Your task to perform on an android device: add a label to a message in the gmail app Image 0: 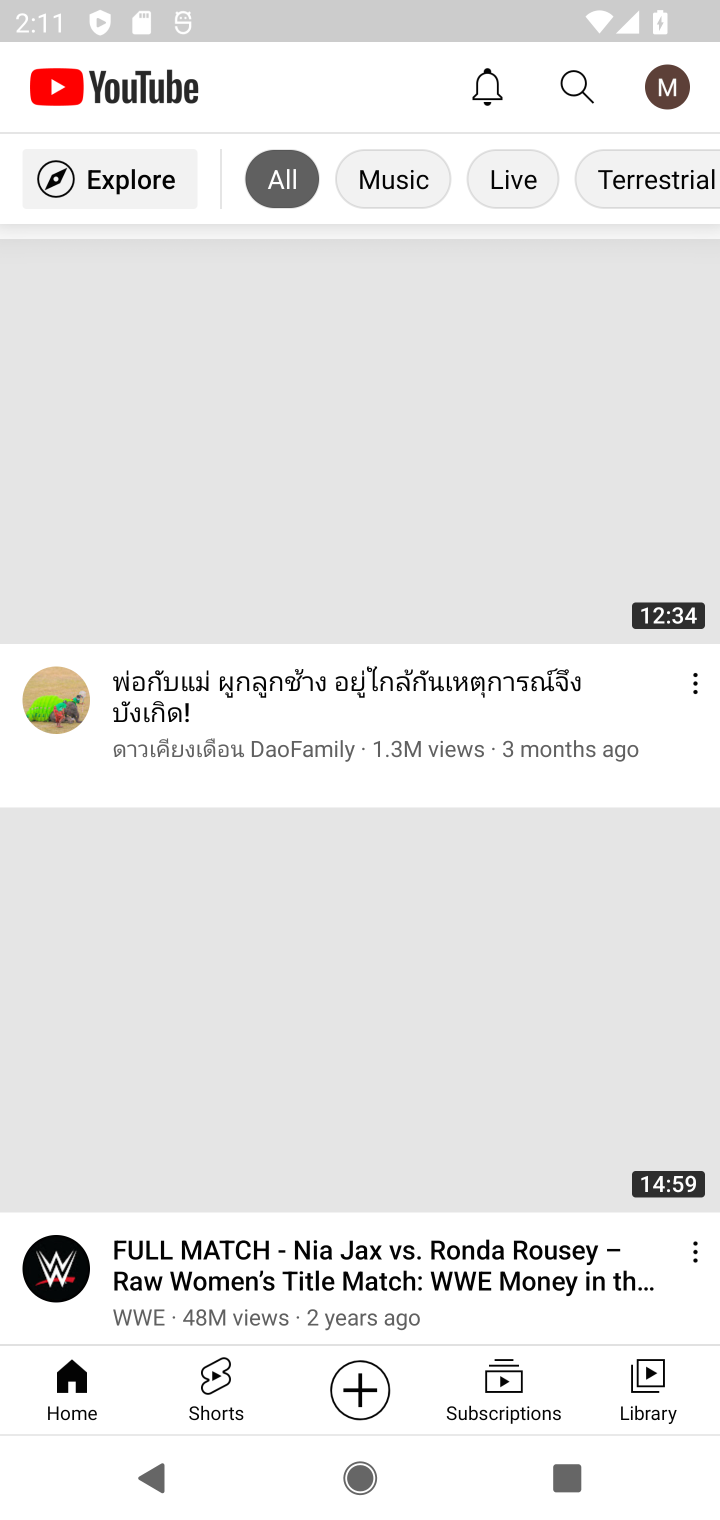
Step 0: press home button
Your task to perform on an android device: add a label to a message in the gmail app Image 1: 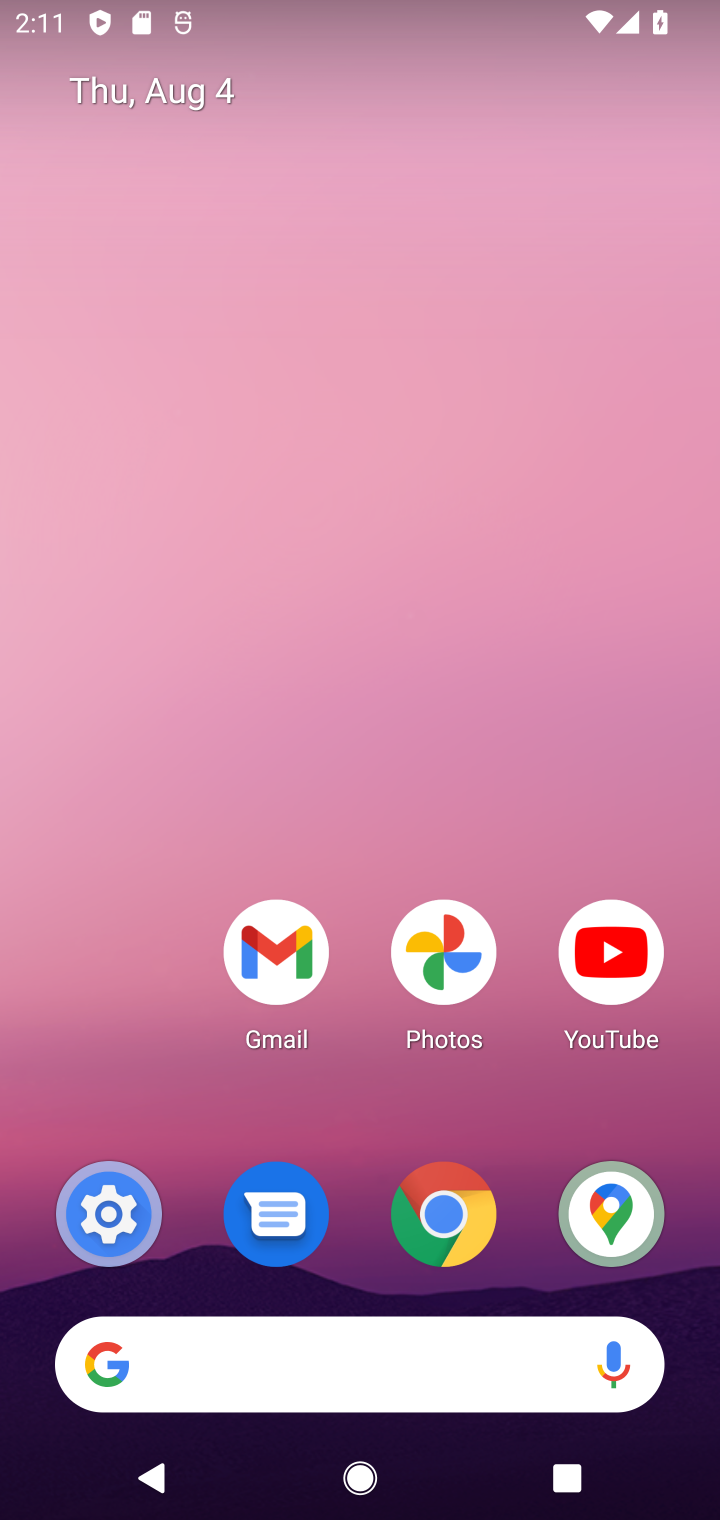
Step 1: drag from (149, 730) to (527, 38)
Your task to perform on an android device: add a label to a message in the gmail app Image 2: 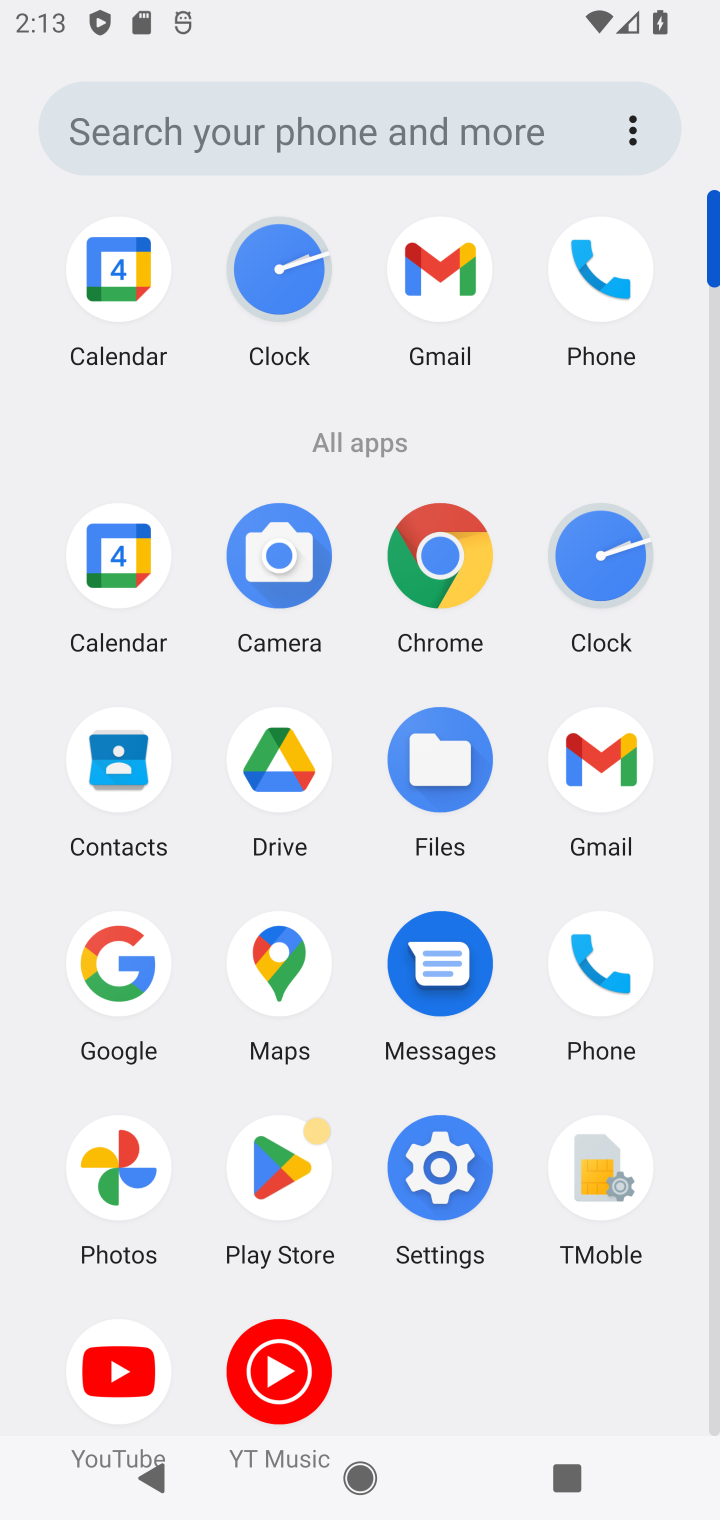
Step 2: click (610, 775)
Your task to perform on an android device: add a label to a message in the gmail app Image 3: 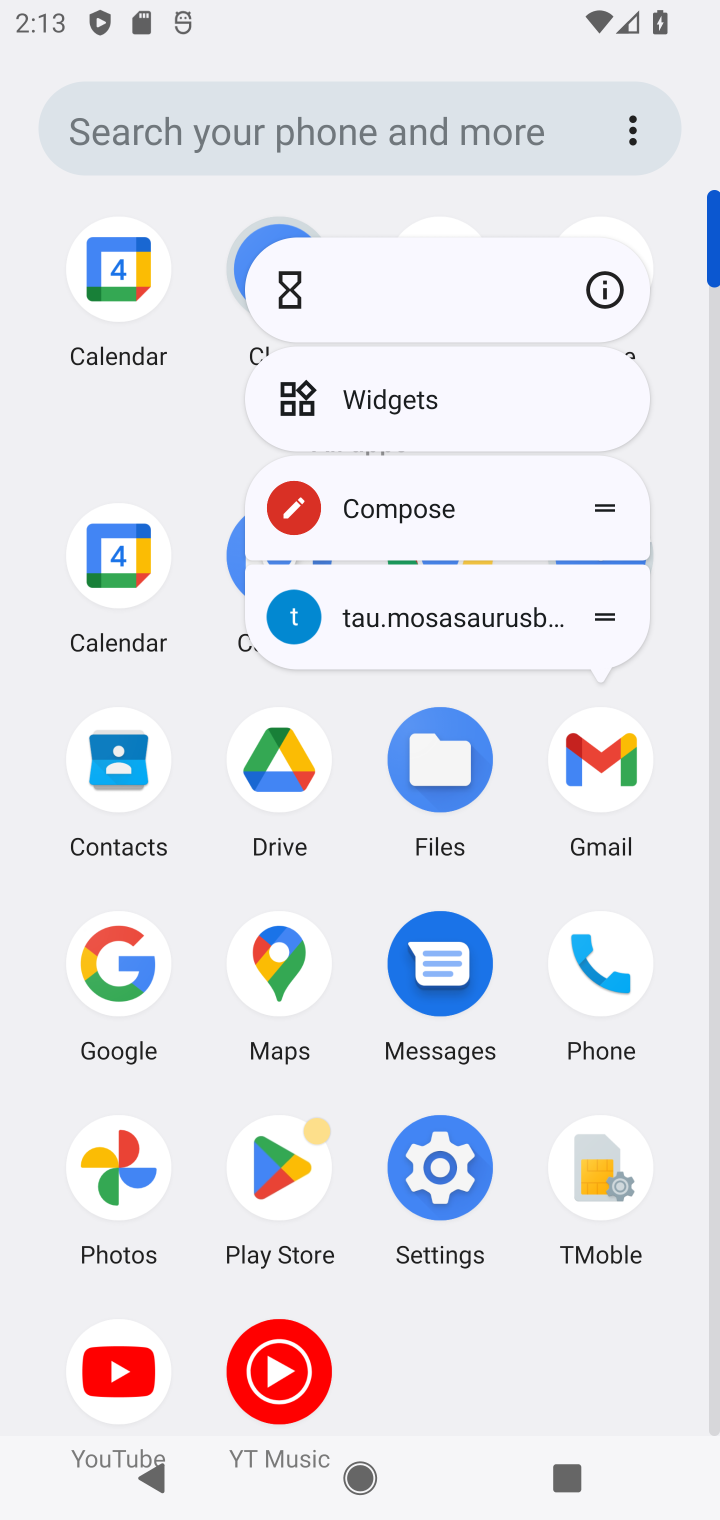
Step 3: click (705, 659)
Your task to perform on an android device: add a label to a message in the gmail app Image 4: 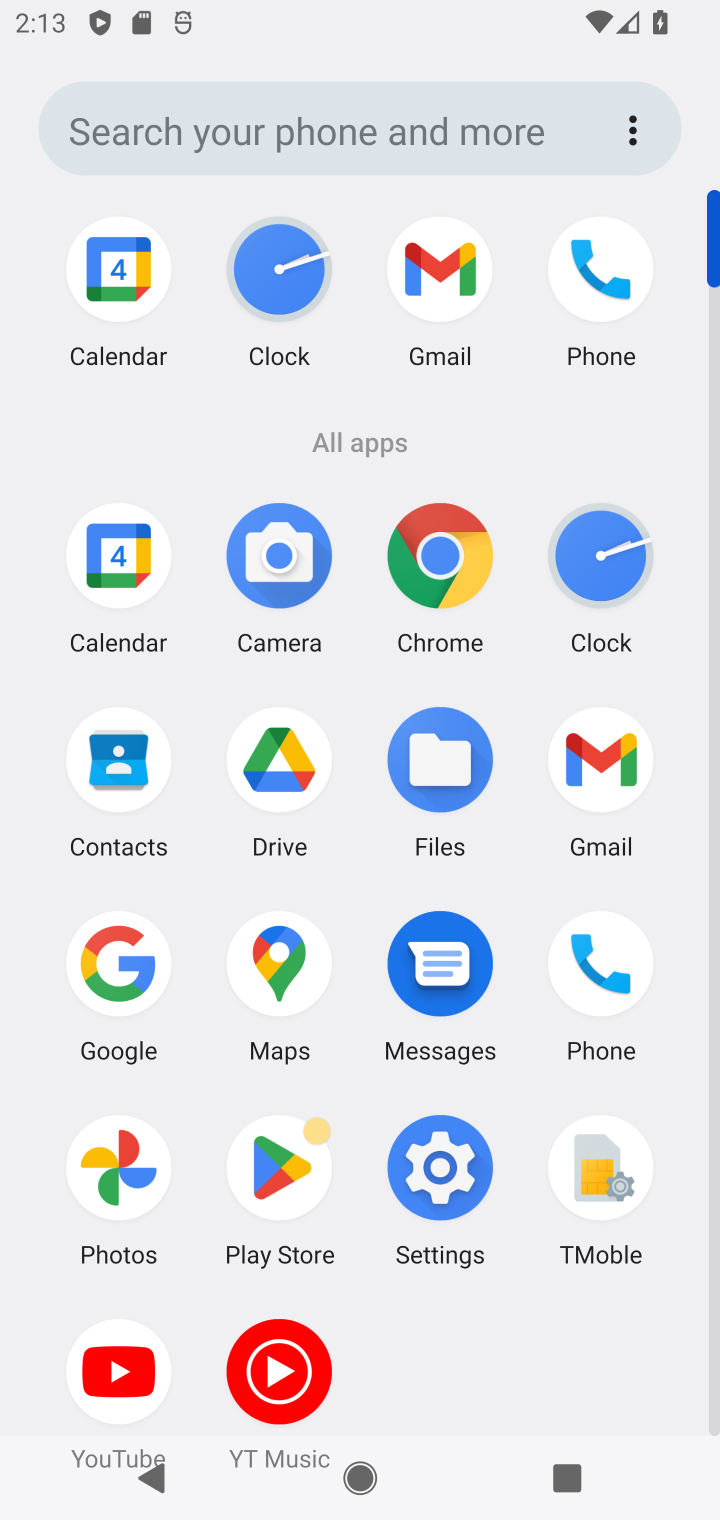
Step 4: click (621, 765)
Your task to perform on an android device: add a label to a message in the gmail app Image 5: 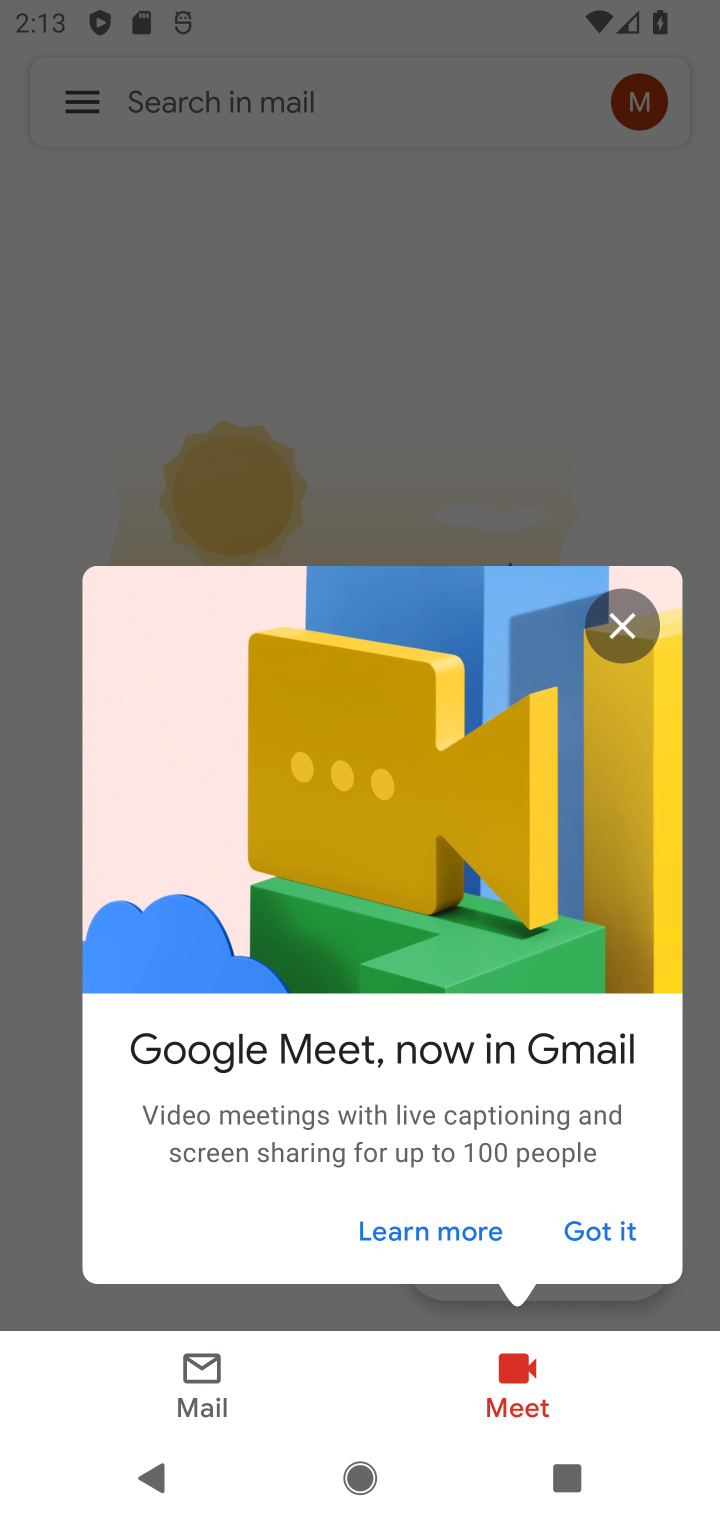
Step 5: click (592, 1247)
Your task to perform on an android device: add a label to a message in the gmail app Image 6: 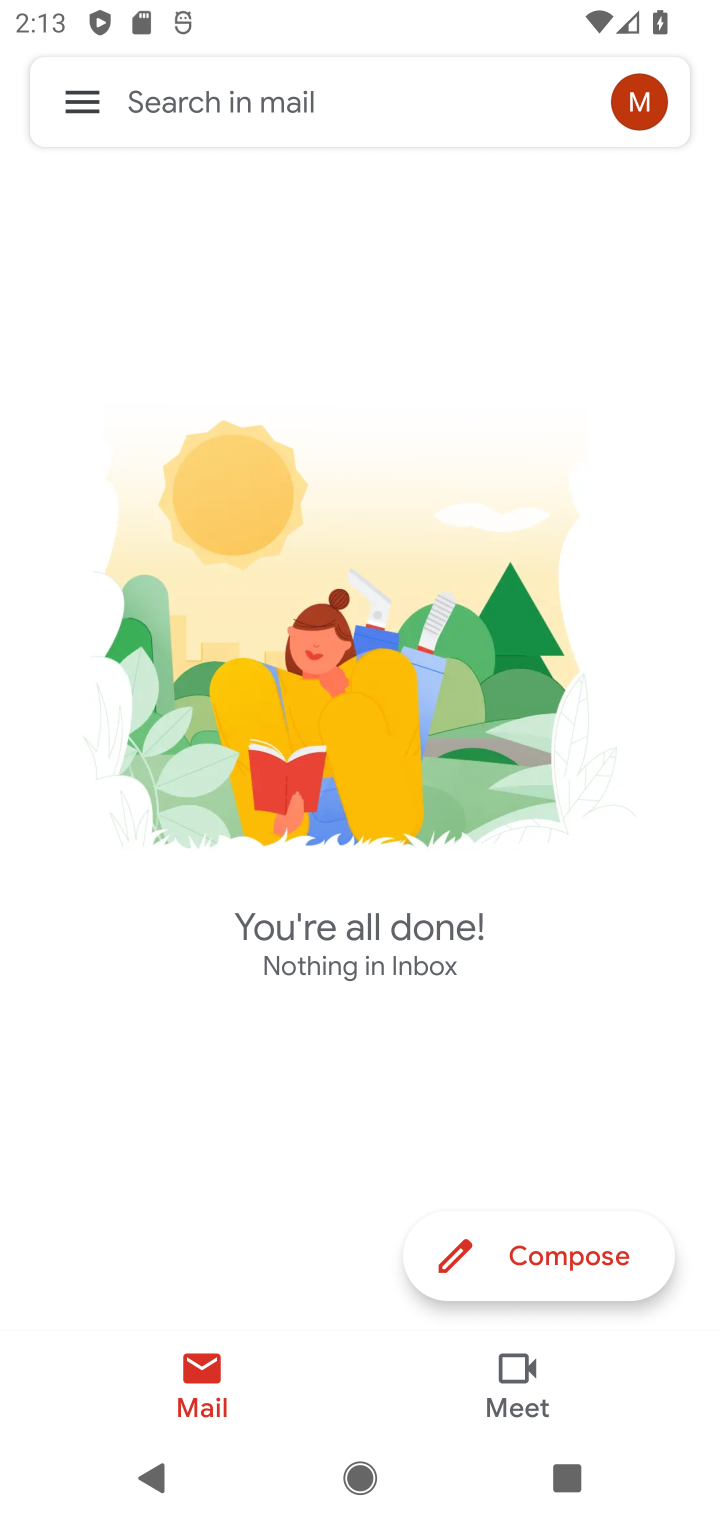
Step 6: task complete